Your task to perform on an android device: Open calendar and show me the second week of next month Image 0: 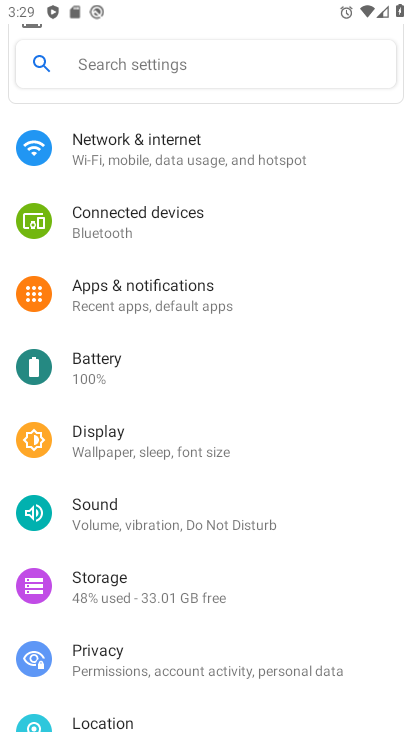
Step 0: press home button
Your task to perform on an android device: Open calendar and show me the second week of next month Image 1: 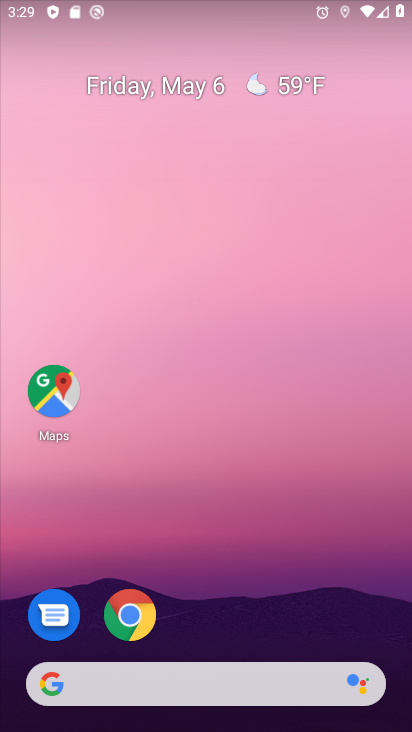
Step 1: drag from (362, 653) to (322, 5)
Your task to perform on an android device: Open calendar and show me the second week of next month Image 2: 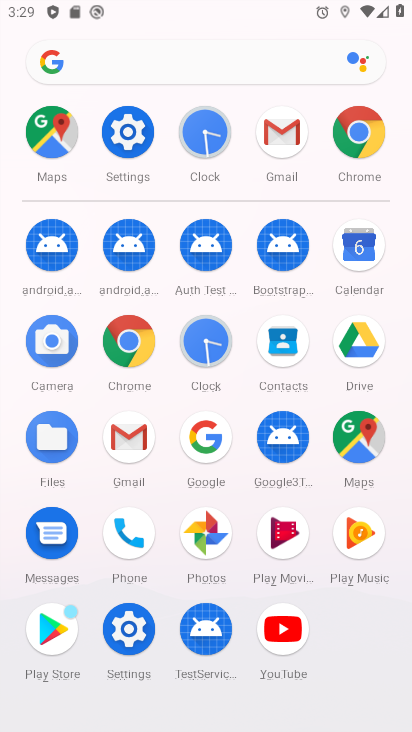
Step 2: click (365, 247)
Your task to perform on an android device: Open calendar and show me the second week of next month Image 3: 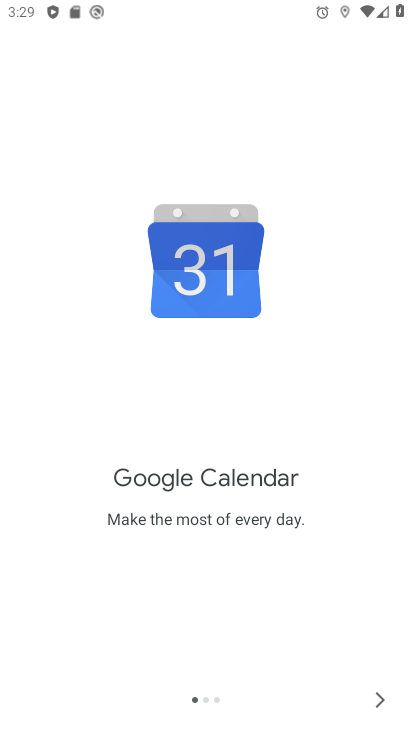
Step 3: click (377, 706)
Your task to perform on an android device: Open calendar and show me the second week of next month Image 4: 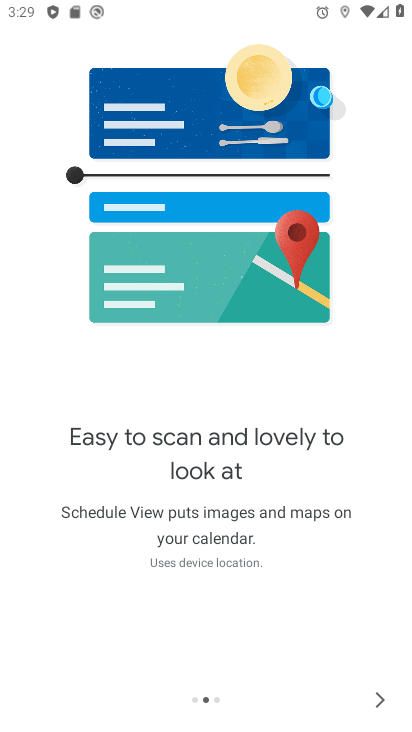
Step 4: click (377, 706)
Your task to perform on an android device: Open calendar and show me the second week of next month Image 5: 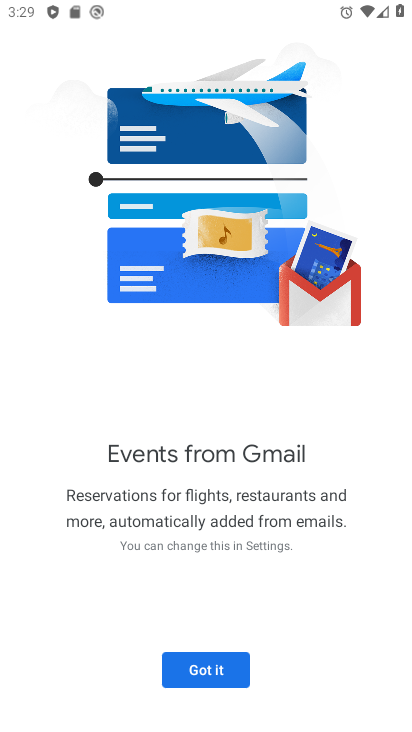
Step 5: click (205, 679)
Your task to perform on an android device: Open calendar and show me the second week of next month Image 6: 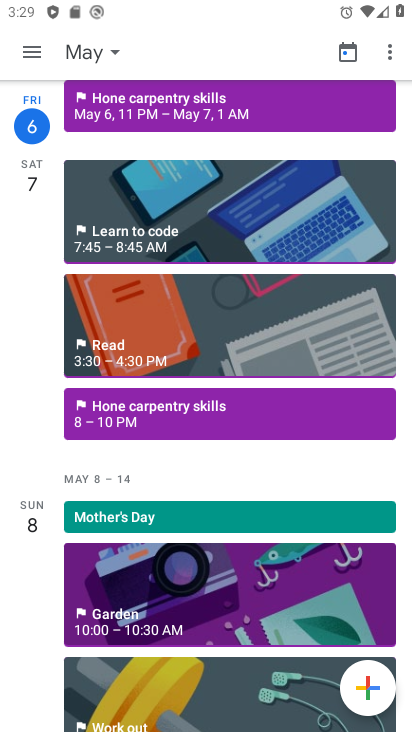
Step 6: click (120, 53)
Your task to perform on an android device: Open calendar and show me the second week of next month Image 7: 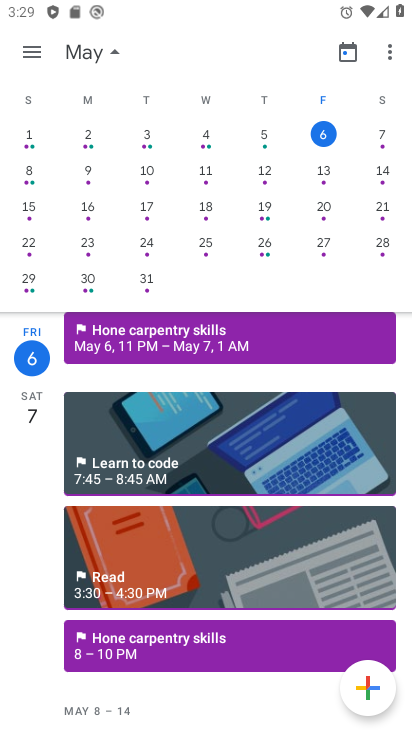
Step 7: drag from (339, 217) to (34, 196)
Your task to perform on an android device: Open calendar and show me the second week of next month Image 8: 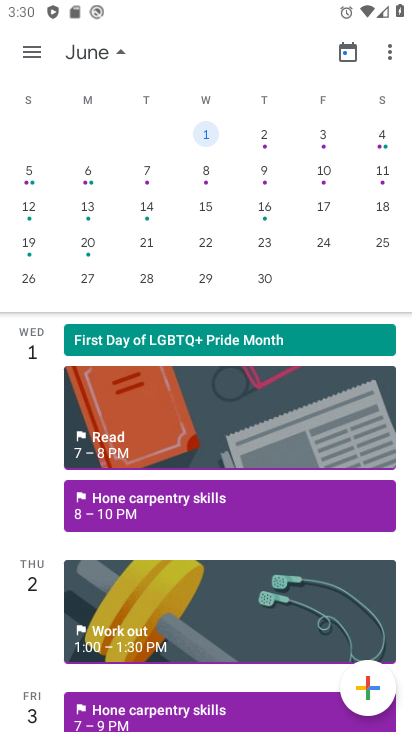
Step 8: click (28, 53)
Your task to perform on an android device: Open calendar and show me the second week of next month Image 9: 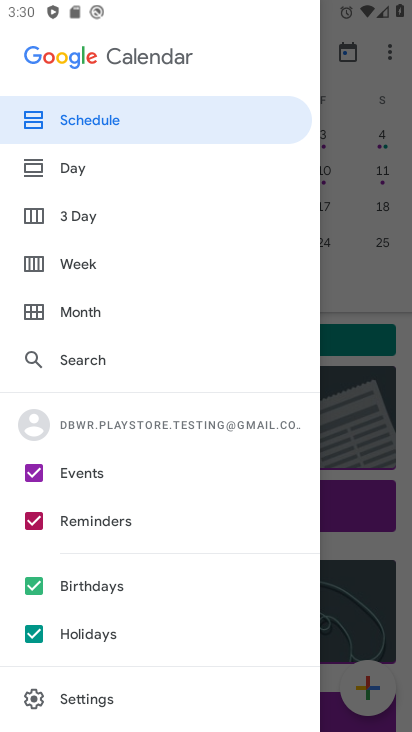
Step 9: click (35, 264)
Your task to perform on an android device: Open calendar and show me the second week of next month Image 10: 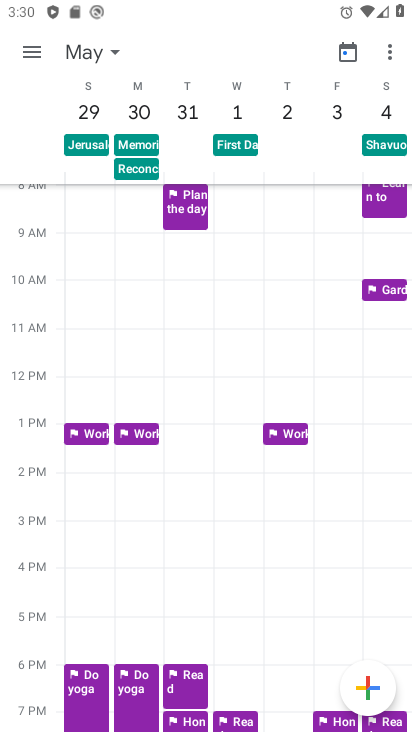
Step 10: task complete